Your task to perform on an android device: What's on my calendar tomorrow? Image 0: 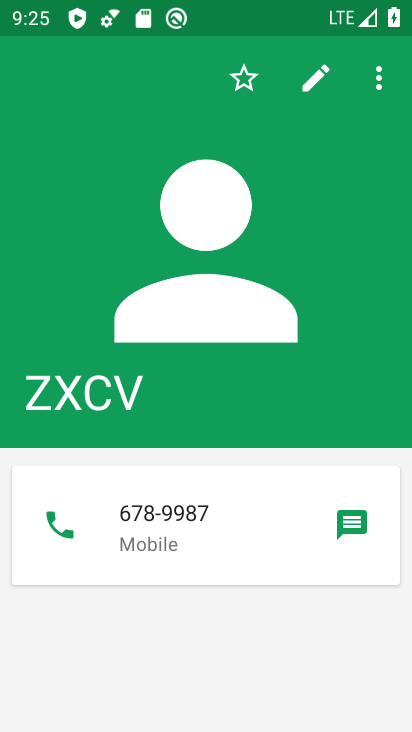
Step 0: press back button
Your task to perform on an android device: What's on my calendar tomorrow? Image 1: 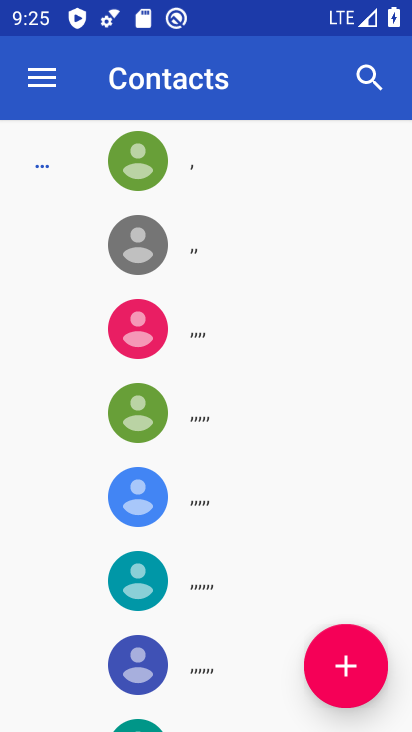
Step 1: press back button
Your task to perform on an android device: What's on my calendar tomorrow? Image 2: 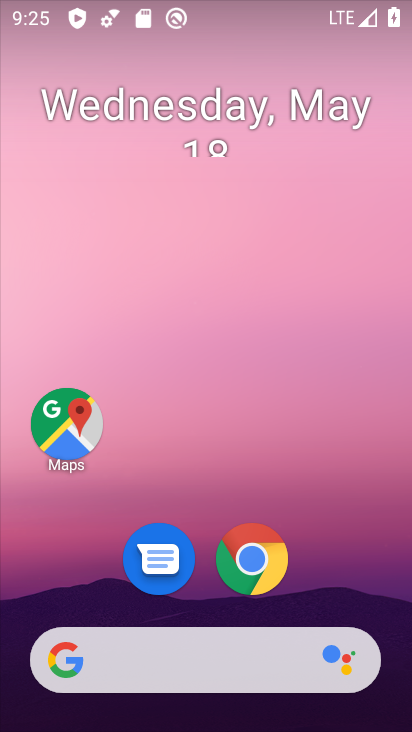
Step 2: drag from (293, 477) to (256, 0)
Your task to perform on an android device: What's on my calendar tomorrow? Image 3: 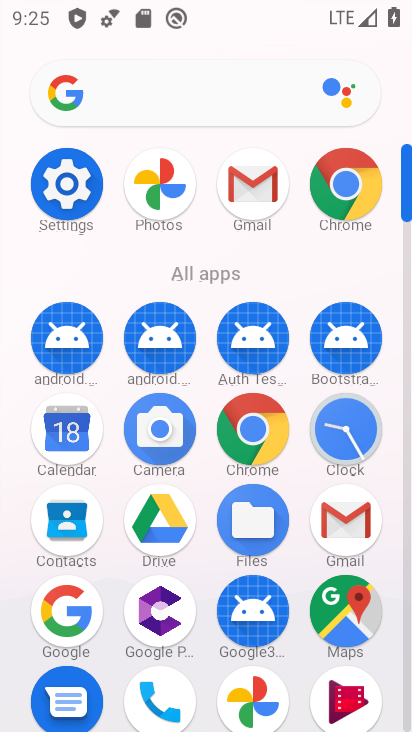
Step 3: click (67, 426)
Your task to perform on an android device: What's on my calendar tomorrow? Image 4: 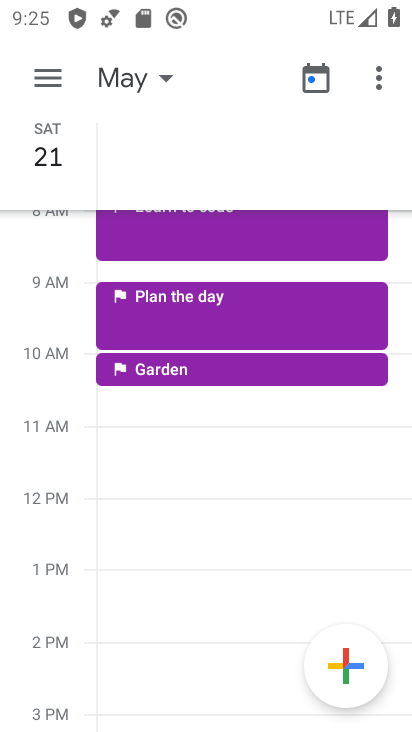
Step 4: click (314, 73)
Your task to perform on an android device: What's on my calendar tomorrow? Image 5: 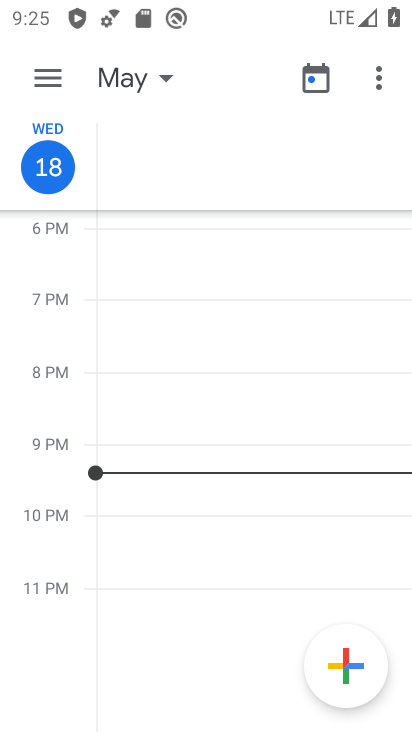
Step 5: task complete